Your task to perform on an android device: Open wifi settings Image 0: 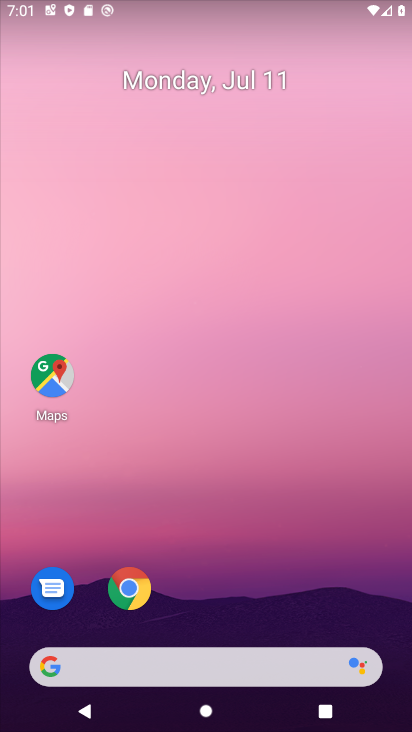
Step 0: drag from (369, 617) to (182, 101)
Your task to perform on an android device: Open wifi settings Image 1: 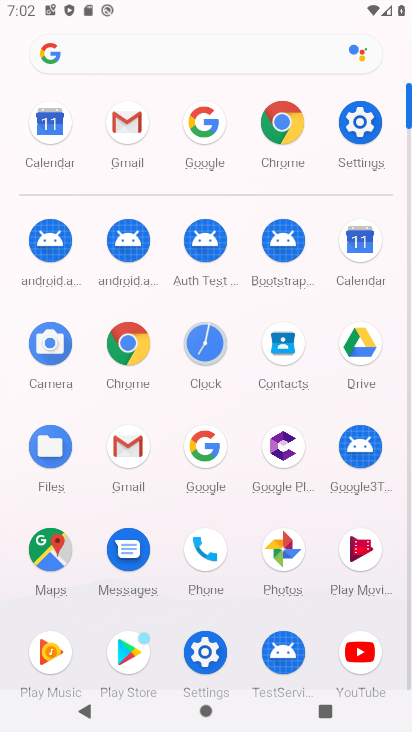
Step 1: click (354, 118)
Your task to perform on an android device: Open wifi settings Image 2: 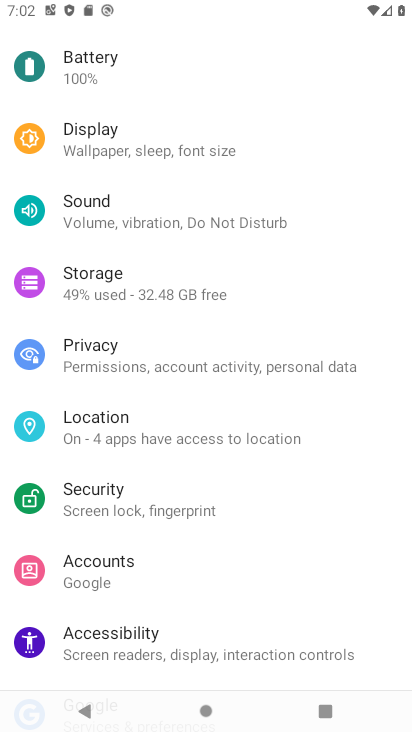
Step 2: drag from (141, 124) to (101, 687)
Your task to perform on an android device: Open wifi settings Image 3: 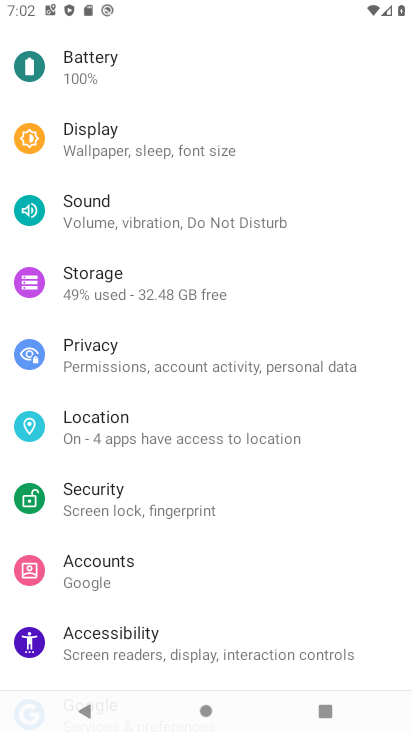
Step 3: drag from (87, 106) to (172, 677)
Your task to perform on an android device: Open wifi settings Image 4: 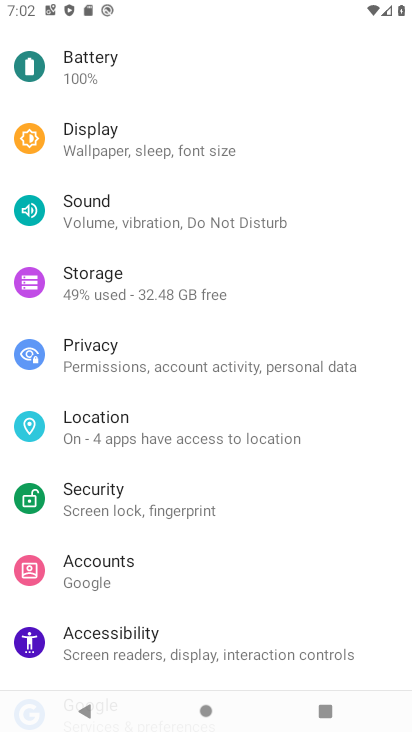
Step 4: drag from (128, 154) to (181, 718)
Your task to perform on an android device: Open wifi settings Image 5: 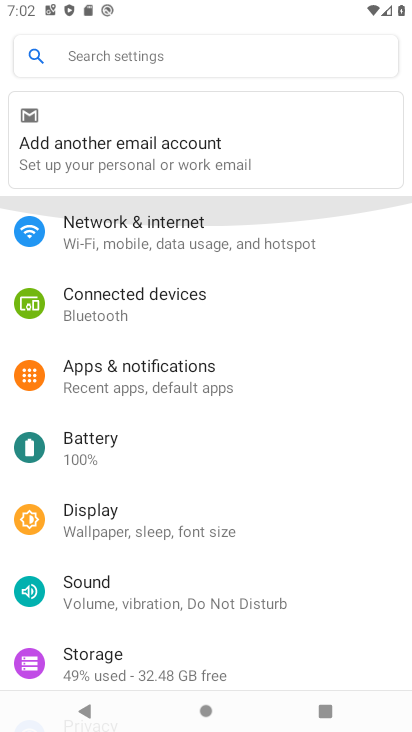
Step 5: drag from (140, 195) to (30, 722)
Your task to perform on an android device: Open wifi settings Image 6: 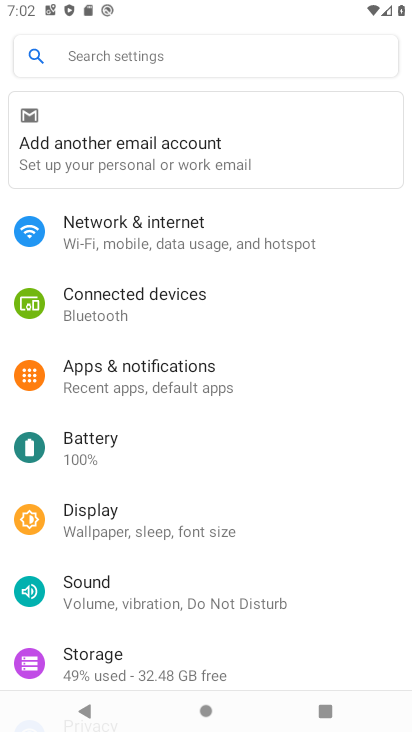
Step 6: click (156, 233)
Your task to perform on an android device: Open wifi settings Image 7: 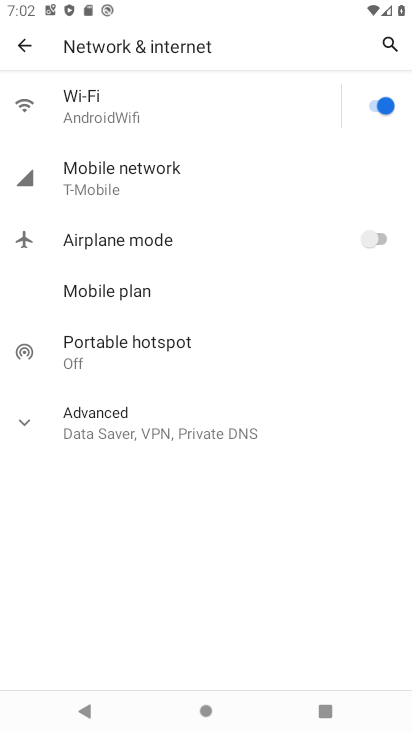
Step 7: task complete